Your task to perform on an android device: turn on the 12-hour format for clock Image 0: 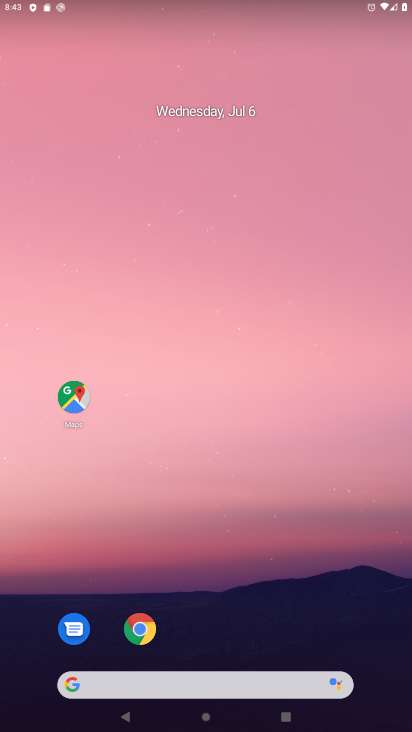
Step 0: drag from (0, 293) to (331, 12)
Your task to perform on an android device: turn on the 12-hour format for clock Image 1: 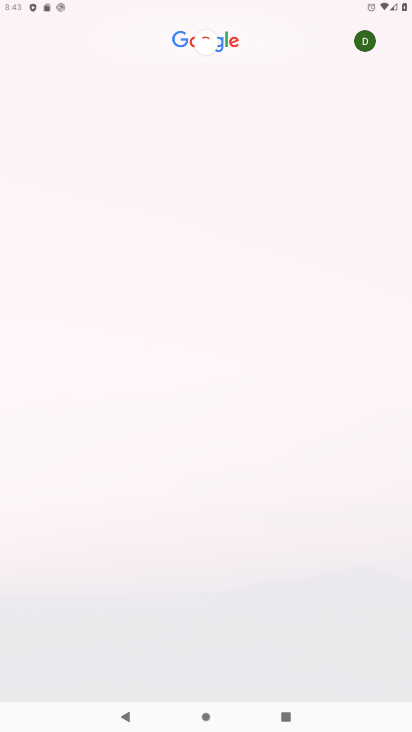
Step 1: press home button
Your task to perform on an android device: turn on the 12-hour format for clock Image 2: 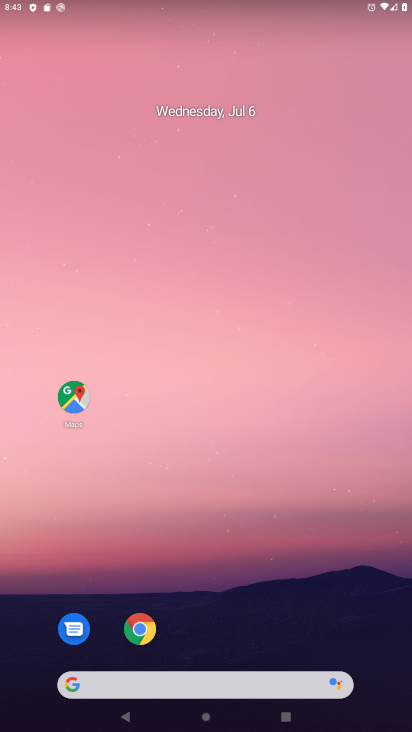
Step 2: drag from (32, 603) to (241, 100)
Your task to perform on an android device: turn on the 12-hour format for clock Image 3: 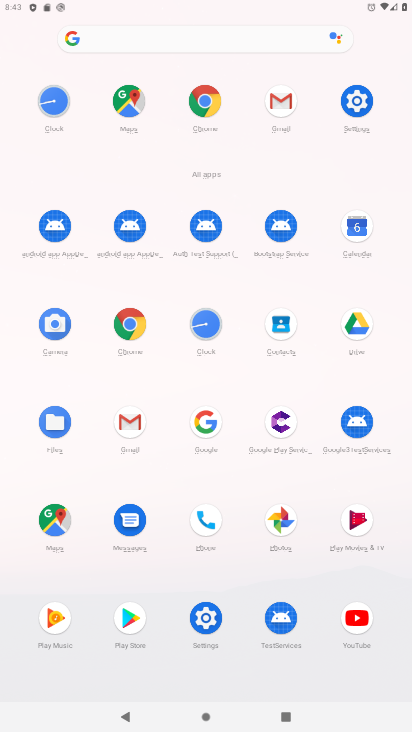
Step 3: click (221, 333)
Your task to perform on an android device: turn on the 12-hour format for clock Image 4: 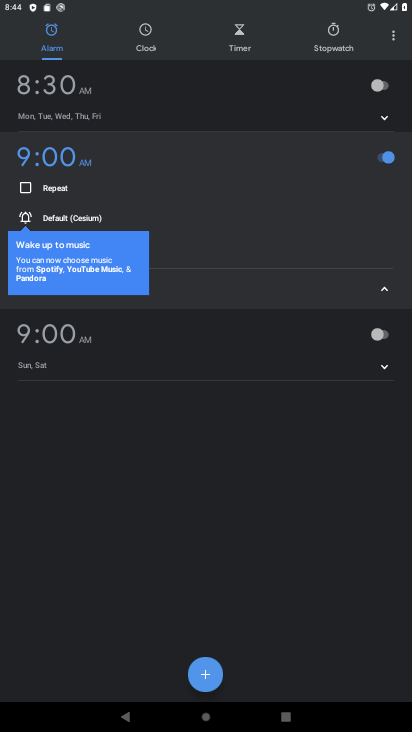
Step 4: click (400, 43)
Your task to perform on an android device: turn on the 12-hour format for clock Image 5: 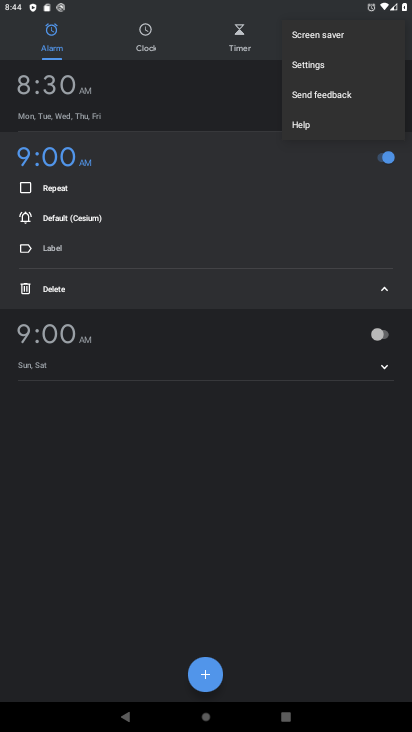
Step 5: click (303, 56)
Your task to perform on an android device: turn on the 12-hour format for clock Image 6: 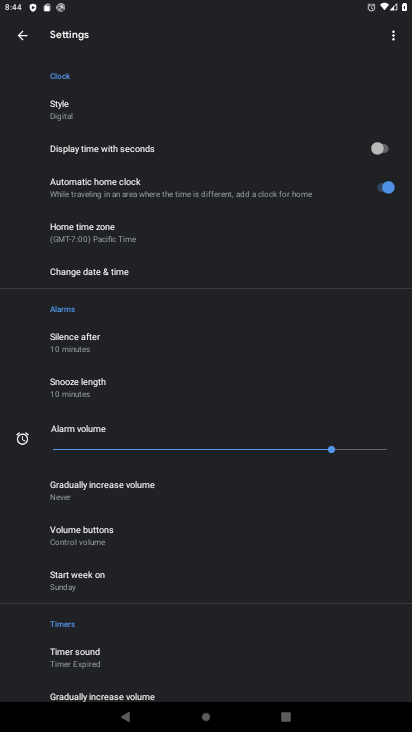
Step 6: click (125, 273)
Your task to perform on an android device: turn on the 12-hour format for clock Image 7: 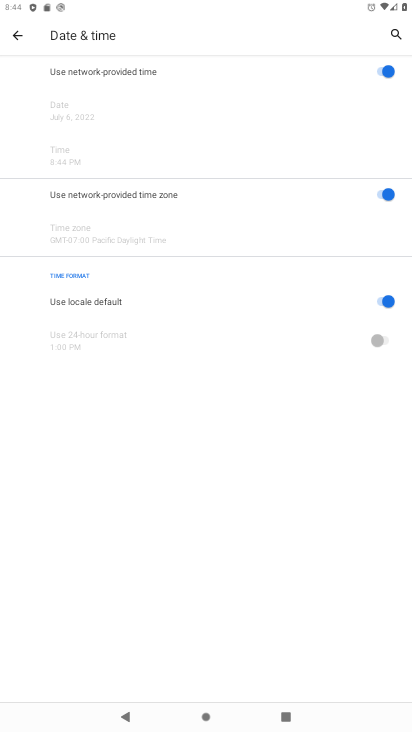
Step 7: task complete